Your task to perform on an android device: move an email to a new category in the gmail app Image 0: 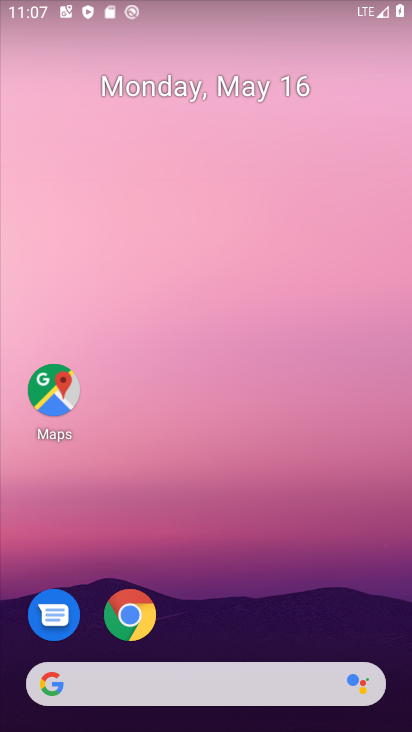
Step 0: drag from (218, 664) to (212, 93)
Your task to perform on an android device: move an email to a new category in the gmail app Image 1: 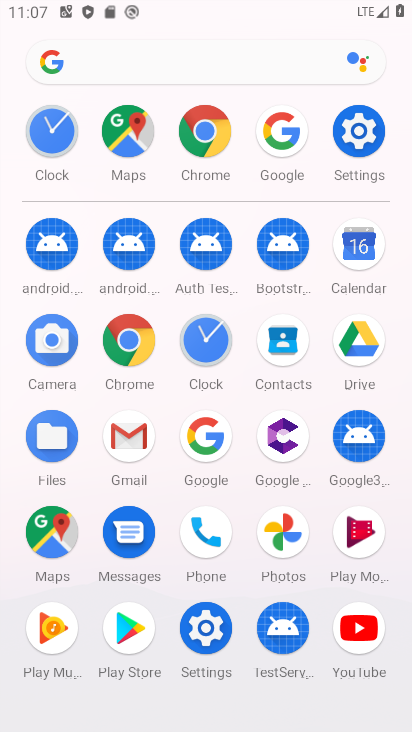
Step 1: click (144, 449)
Your task to perform on an android device: move an email to a new category in the gmail app Image 2: 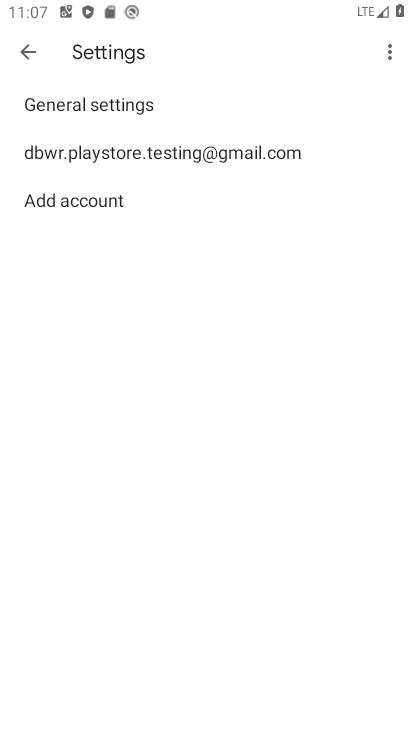
Step 2: click (27, 49)
Your task to perform on an android device: move an email to a new category in the gmail app Image 3: 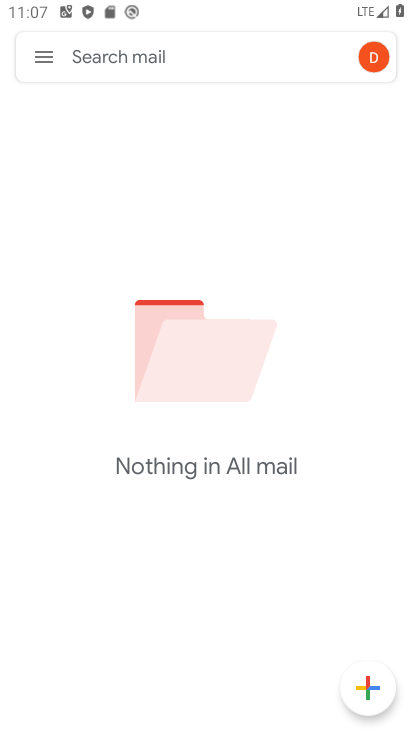
Step 3: task complete